Your task to perform on an android device: open app "Pluto TV - Live TV and Movies" Image 0: 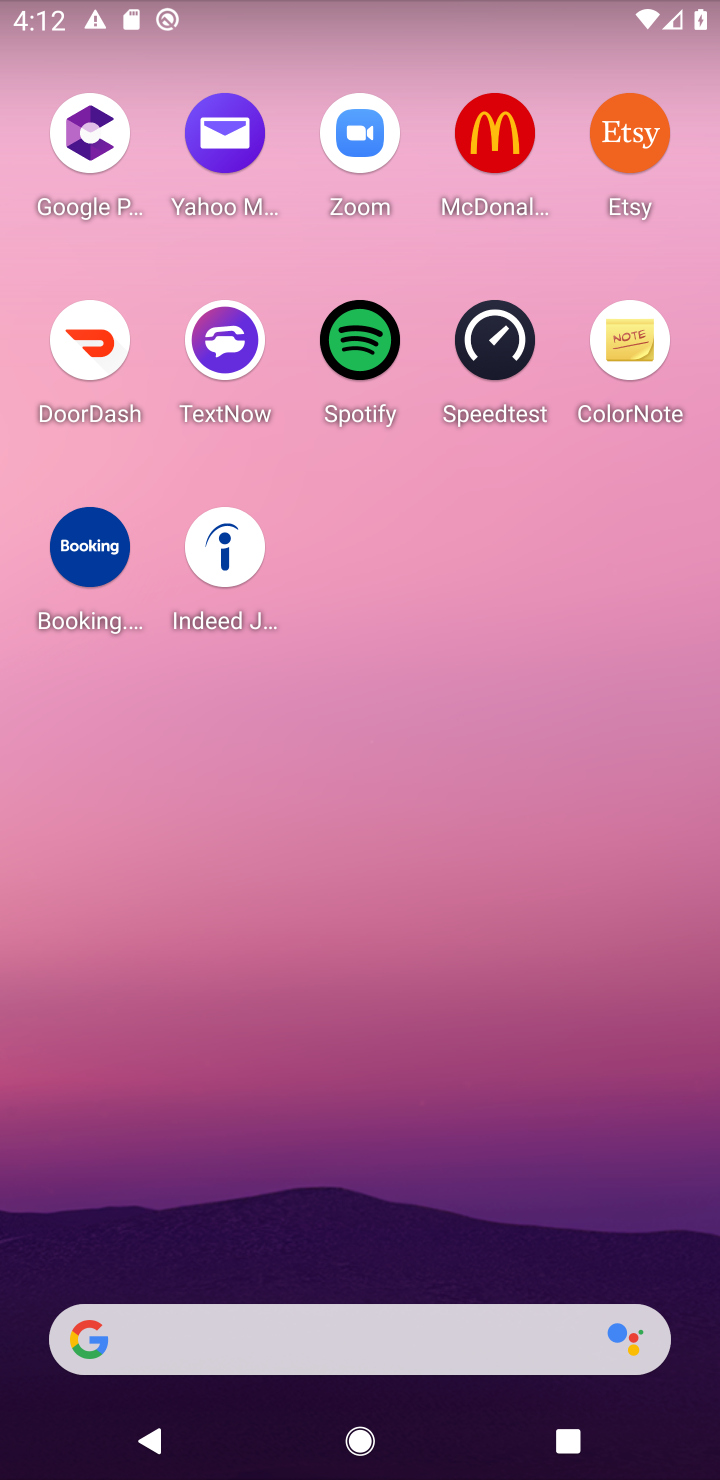
Step 0: press back button
Your task to perform on an android device: open app "Pluto TV - Live TV and Movies" Image 1: 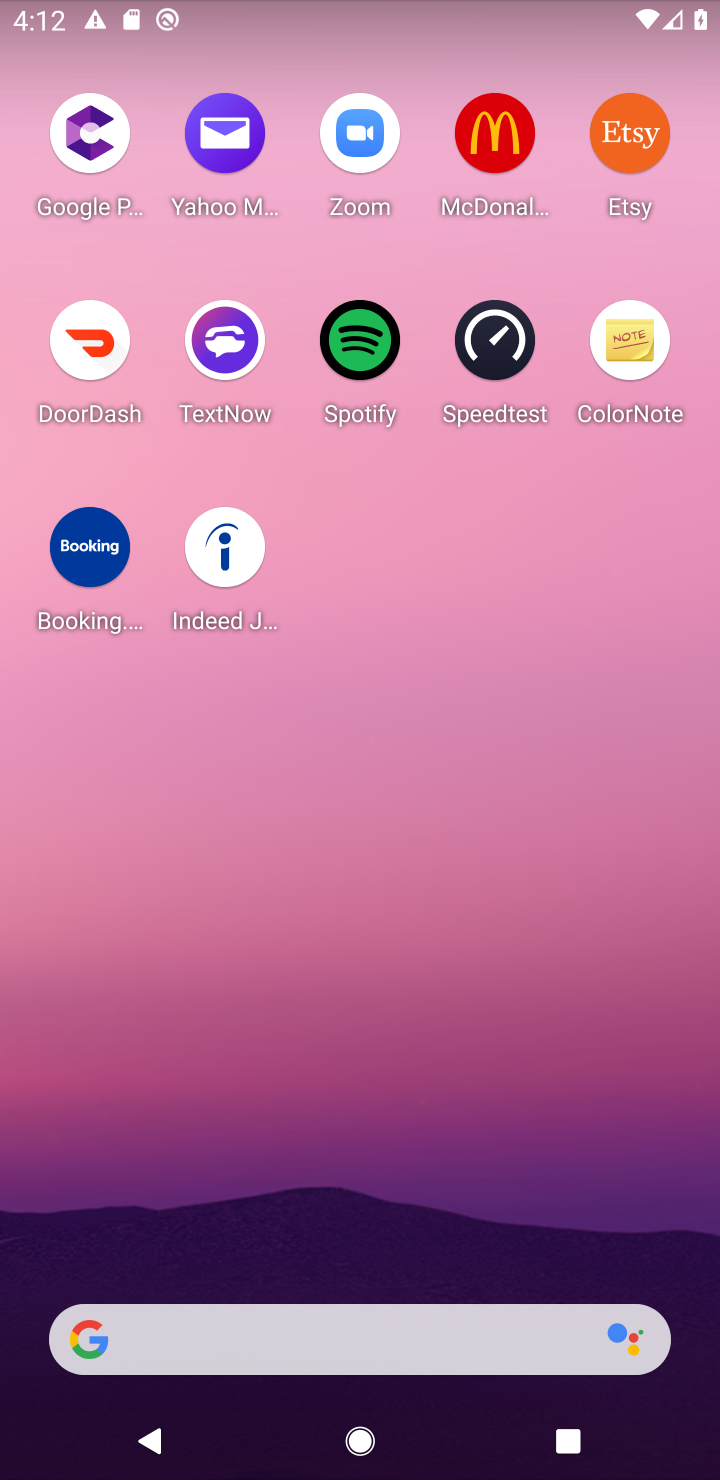
Step 1: press home button
Your task to perform on an android device: open app "Pluto TV - Live TV and Movies" Image 2: 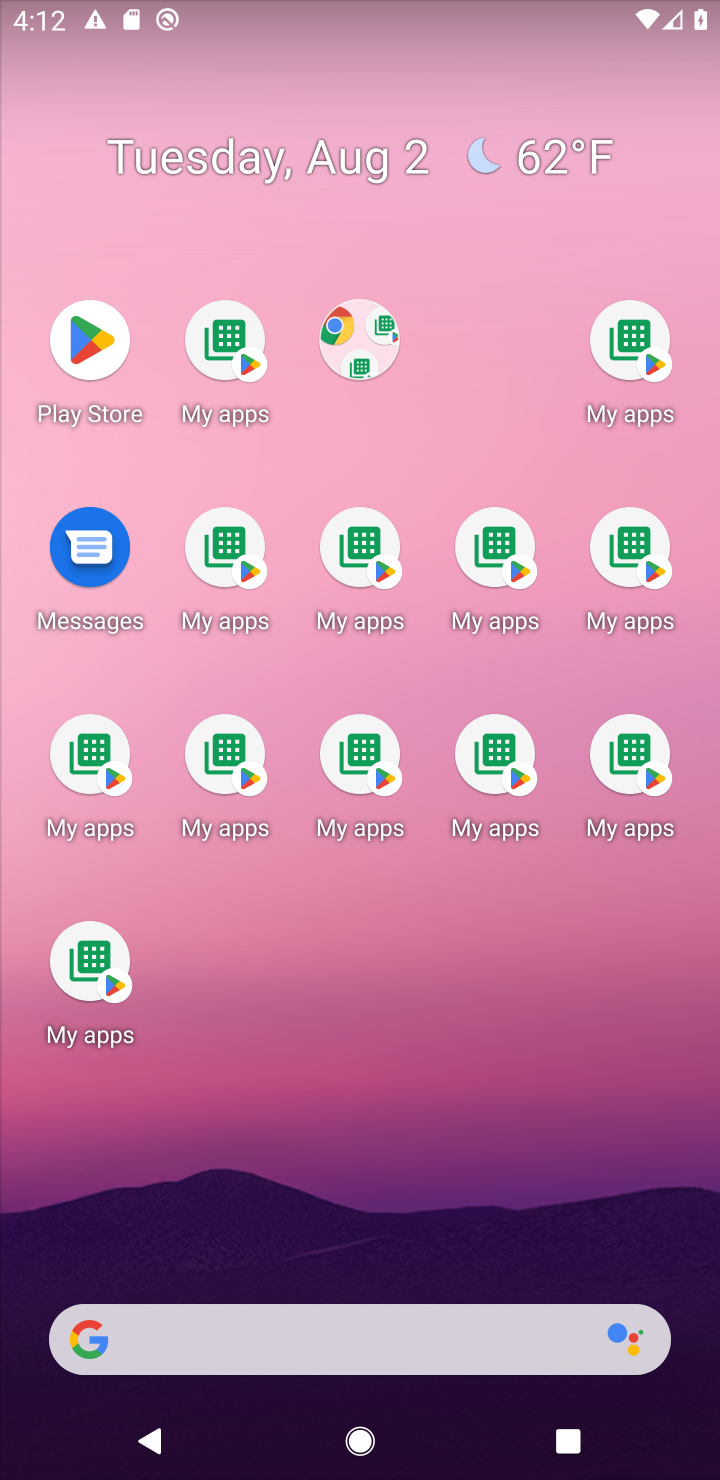
Step 2: drag from (359, 1154) to (105, 356)
Your task to perform on an android device: open app "Pluto TV - Live TV and Movies" Image 3: 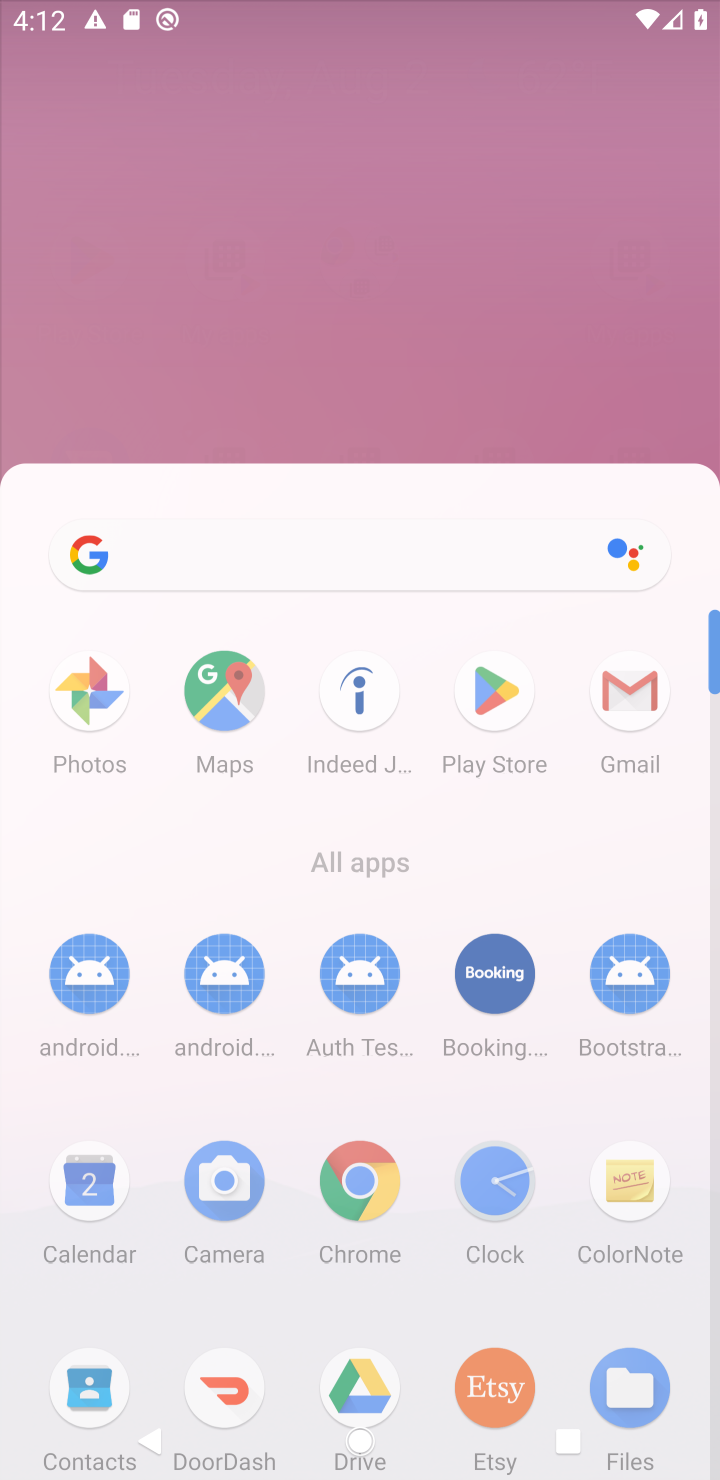
Step 3: click (98, 345)
Your task to perform on an android device: open app "Pluto TV - Live TV and Movies" Image 4: 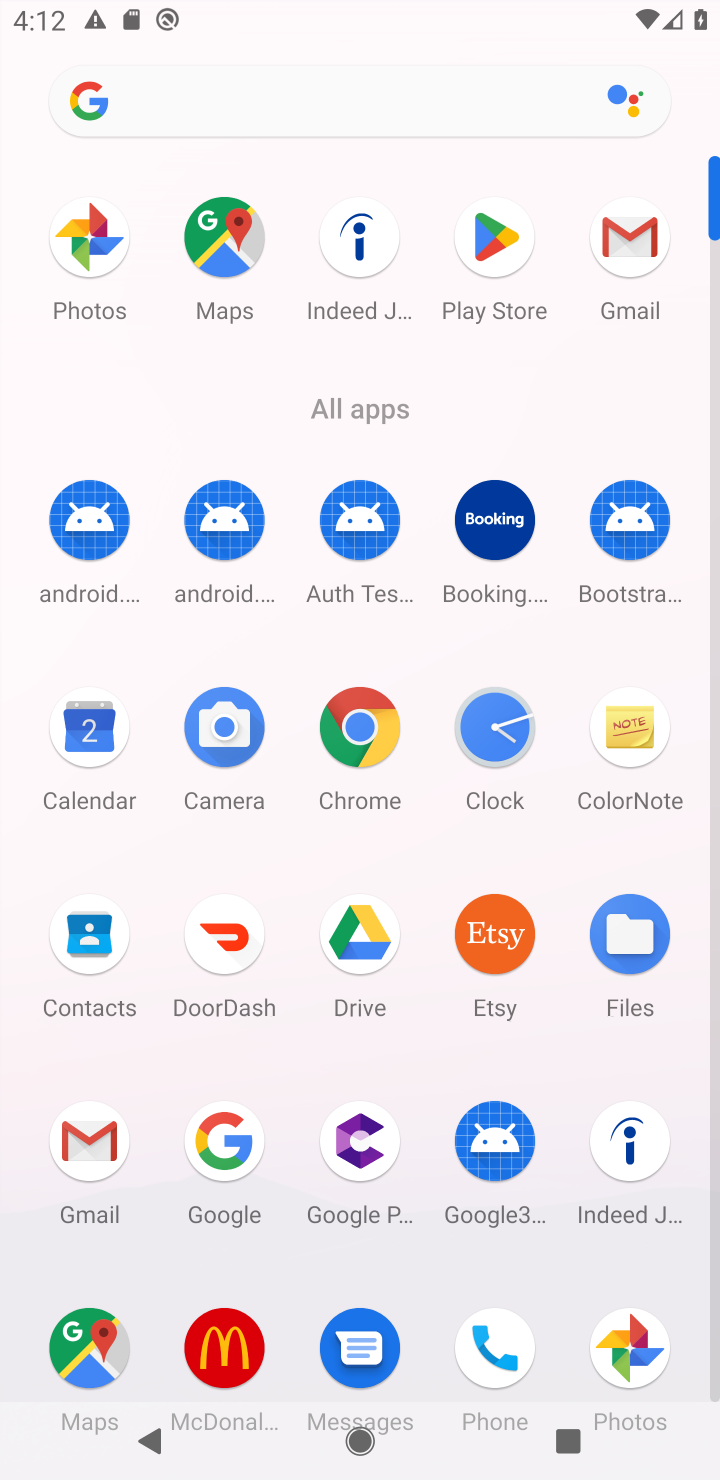
Step 4: click (492, 240)
Your task to perform on an android device: open app "Pluto TV - Live TV and Movies" Image 5: 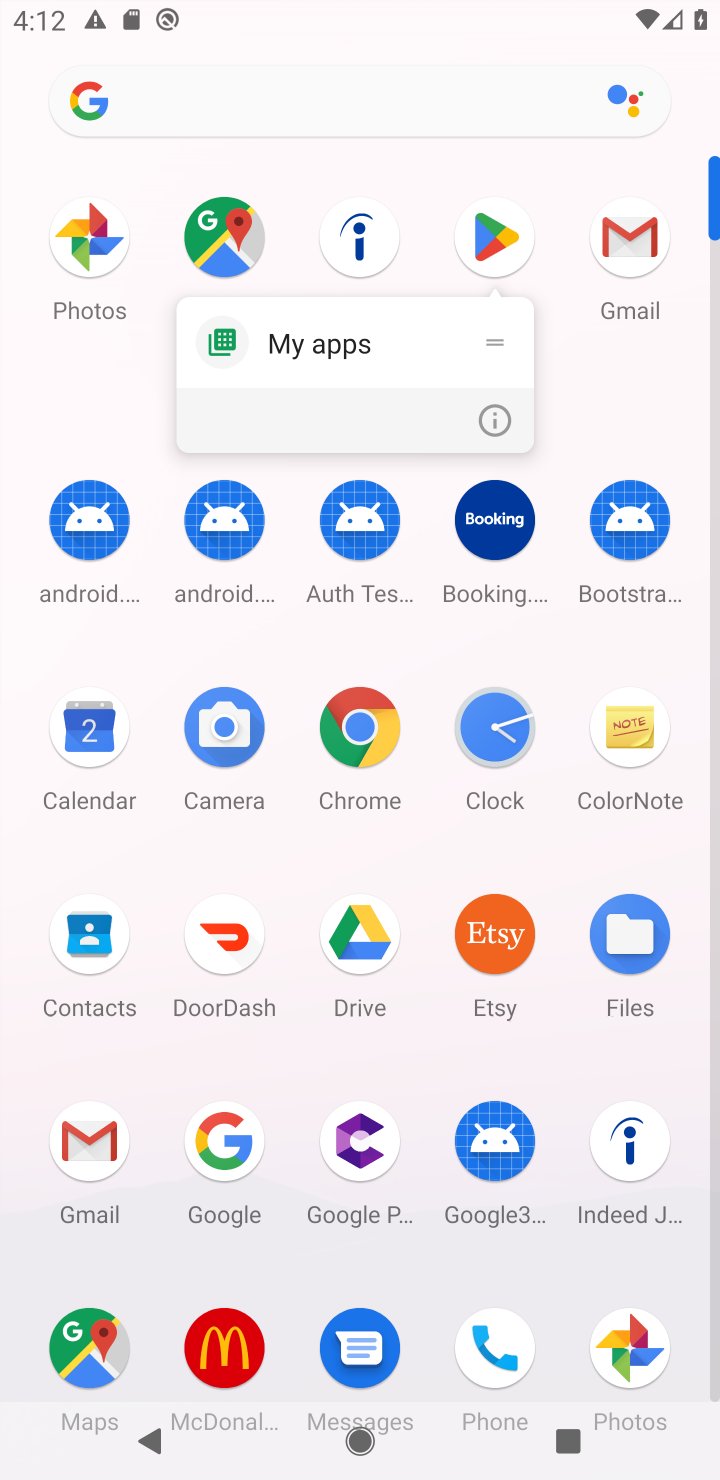
Step 5: click (296, 343)
Your task to perform on an android device: open app "Pluto TV - Live TV and Movies" Image 6: 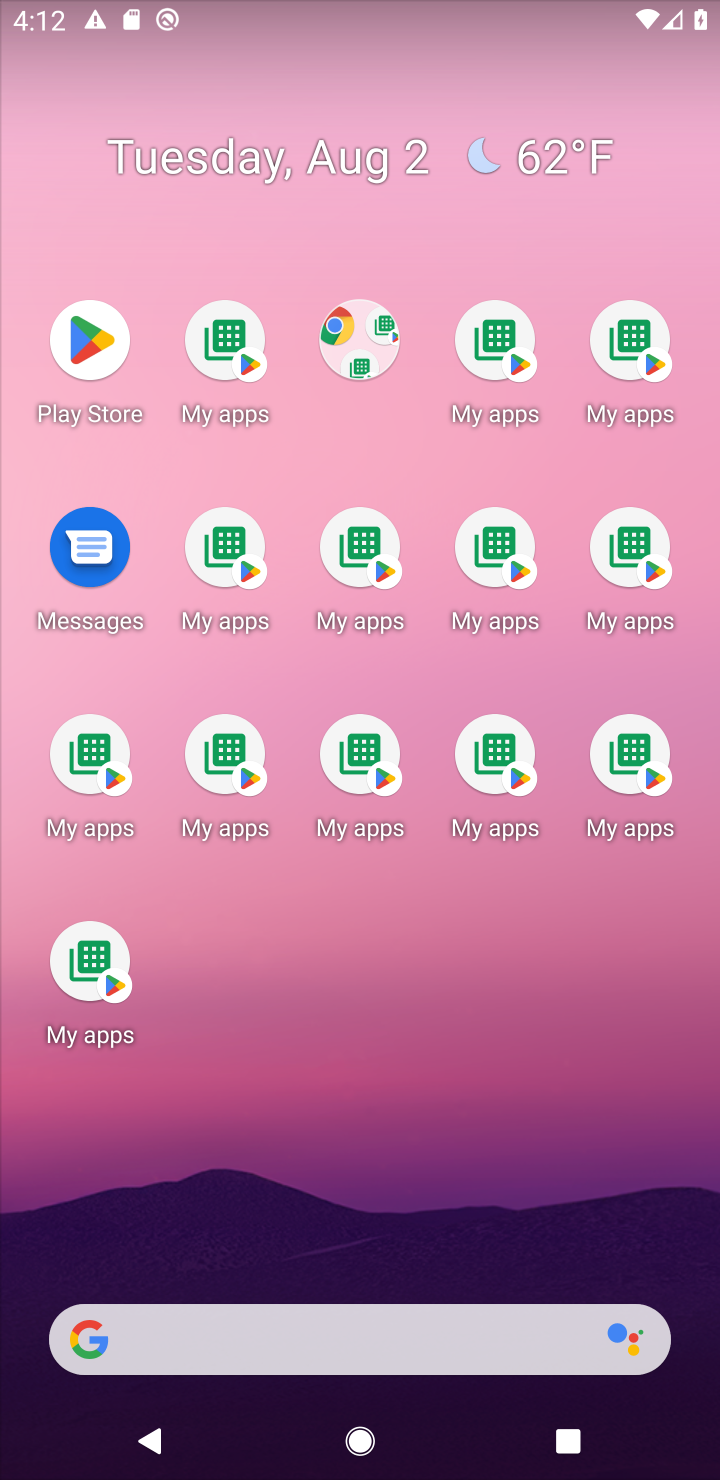
Step 6: click (111, 329)
Your task to perform on an android device: open app "Pluto TV - Live TV and Movies" Image 7: 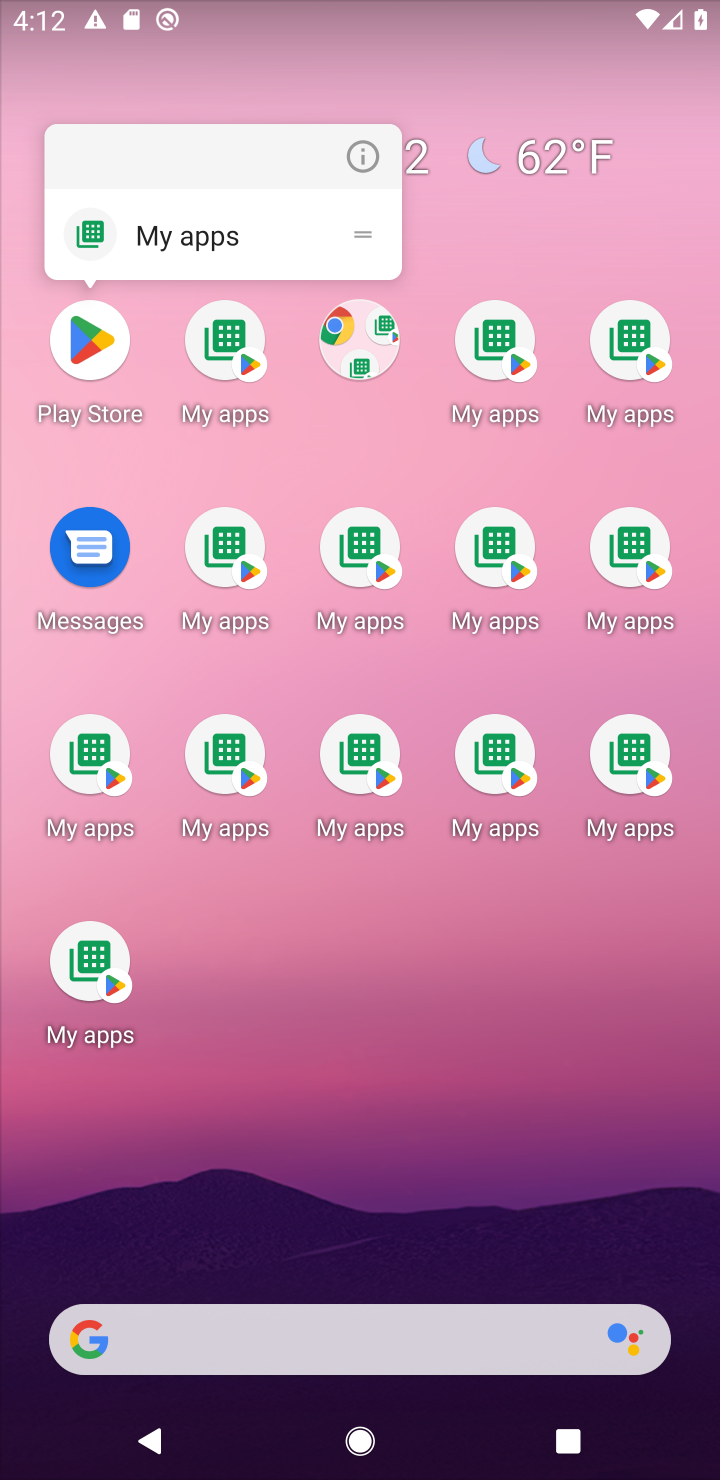
Step 7: click (142, 230)
Your task to perform on an android device: open app "Pluto TV - Live TV and Movies" Image 8: 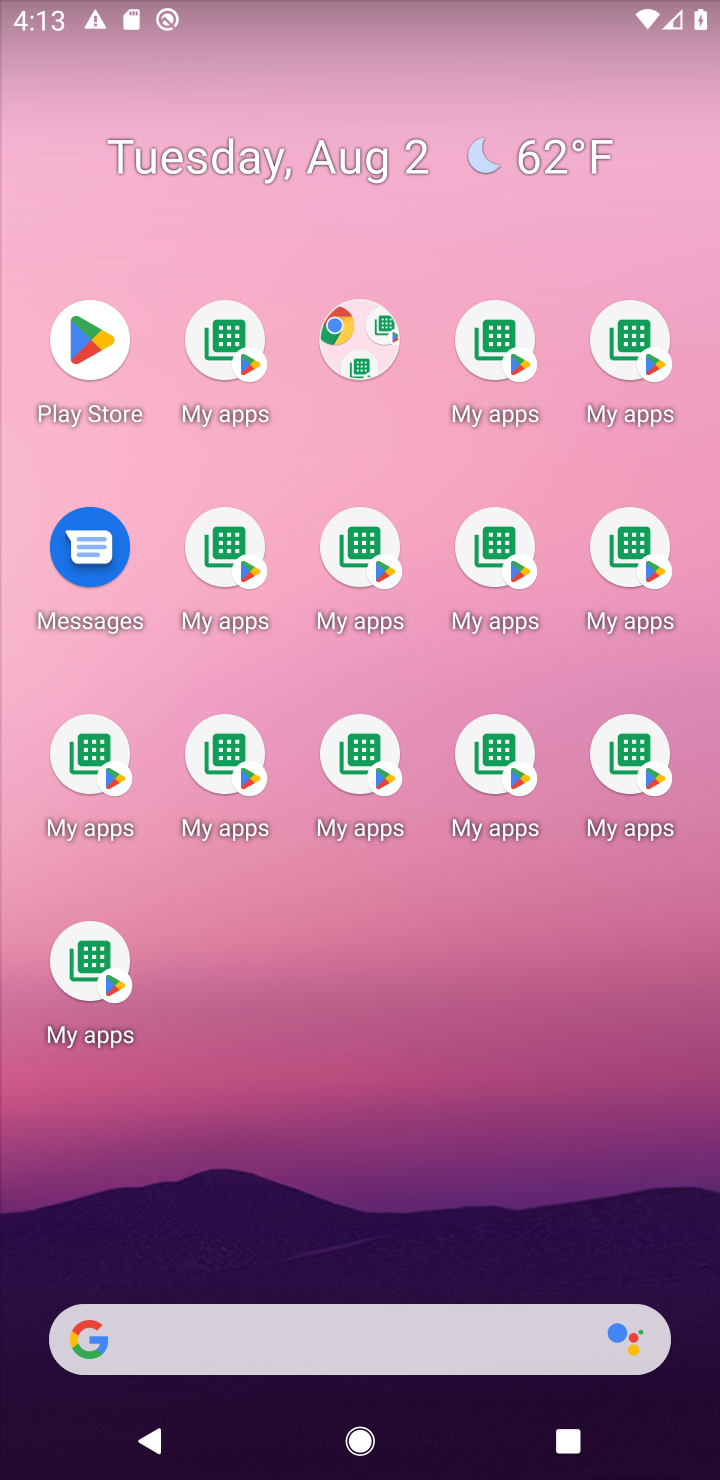
Step 8: click (102, 344)
Your task to perform on an android device: open app "Pluto TV - Live TV and Movies" Image 9: 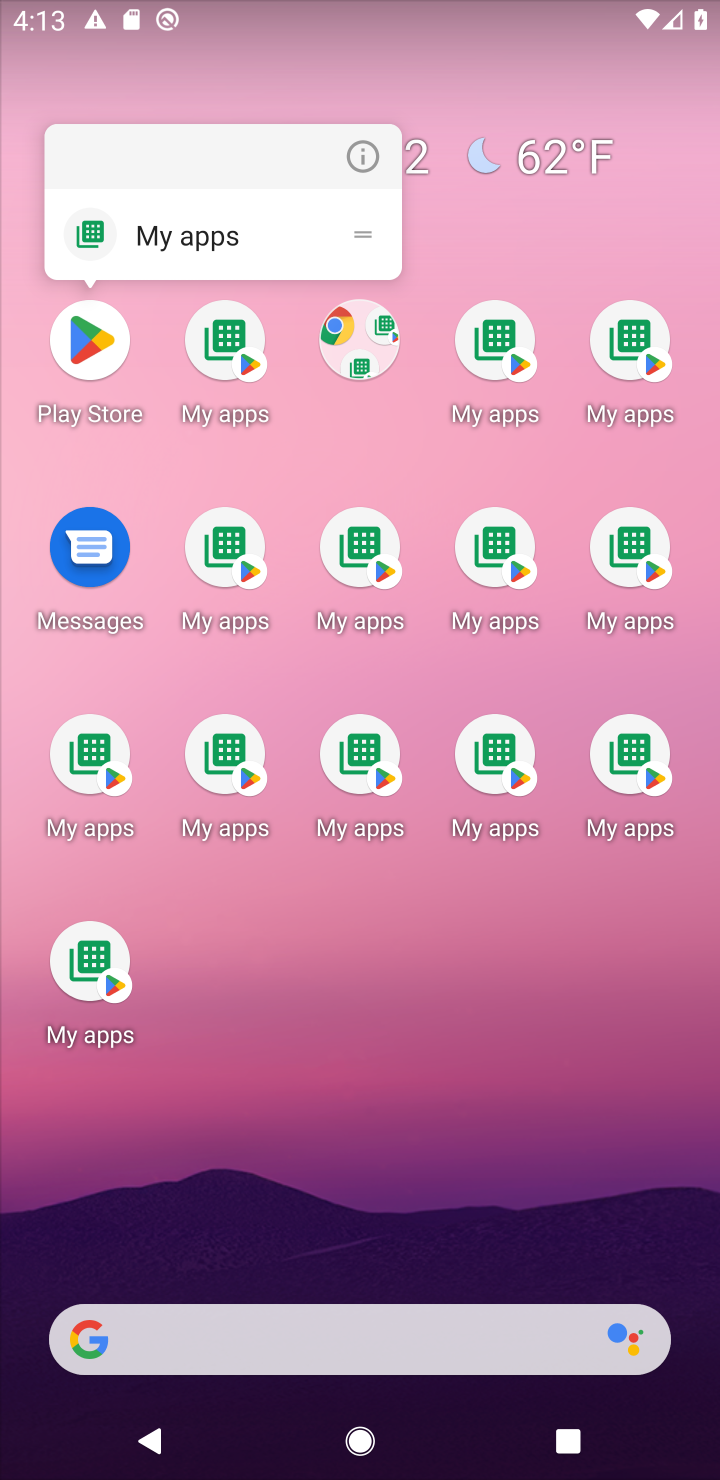
Step 9: click (128, 332)
Your task to perform on an android device: open app "Pluto TV - Live TV and Movies" Image 10: 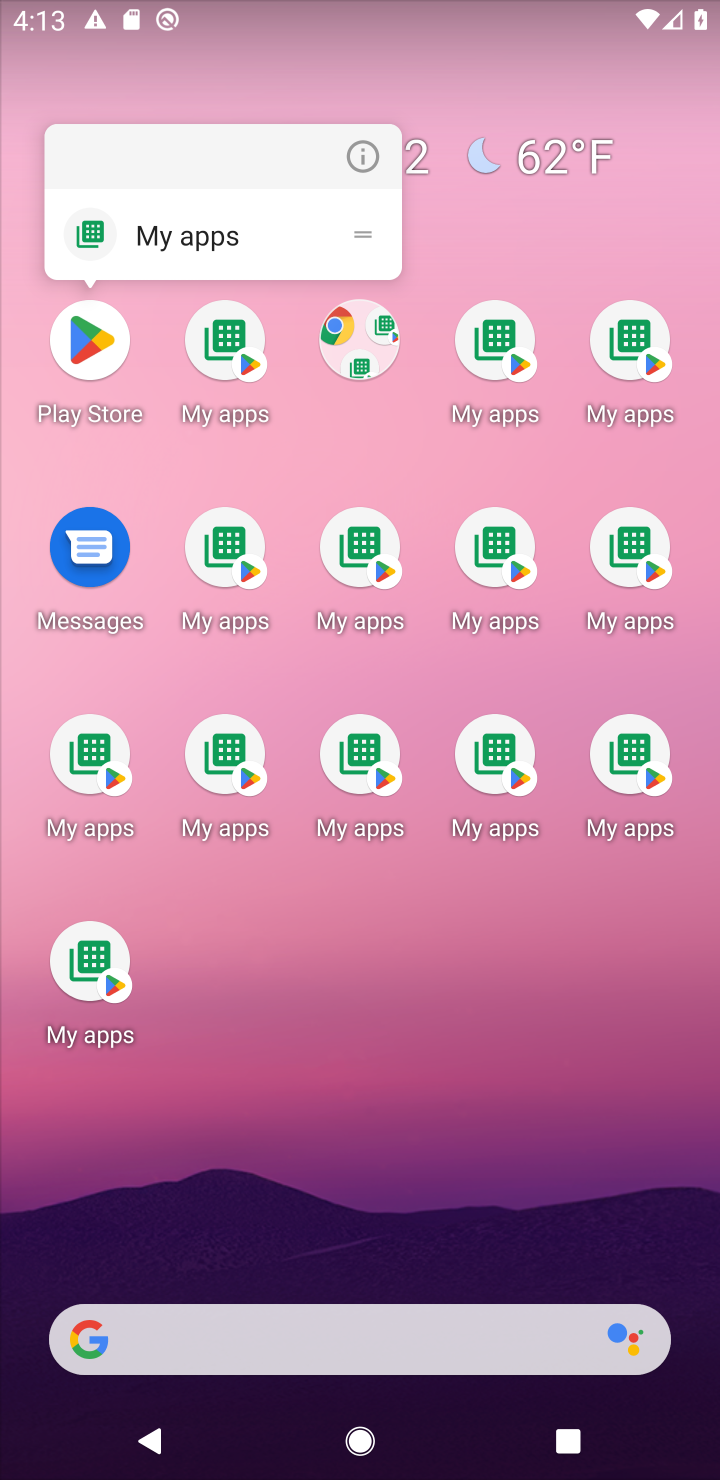
Step 10: click (96, 331)
Your task to perform on an android device: open app "Pluto TV - Live TV and Movies" Image 11: 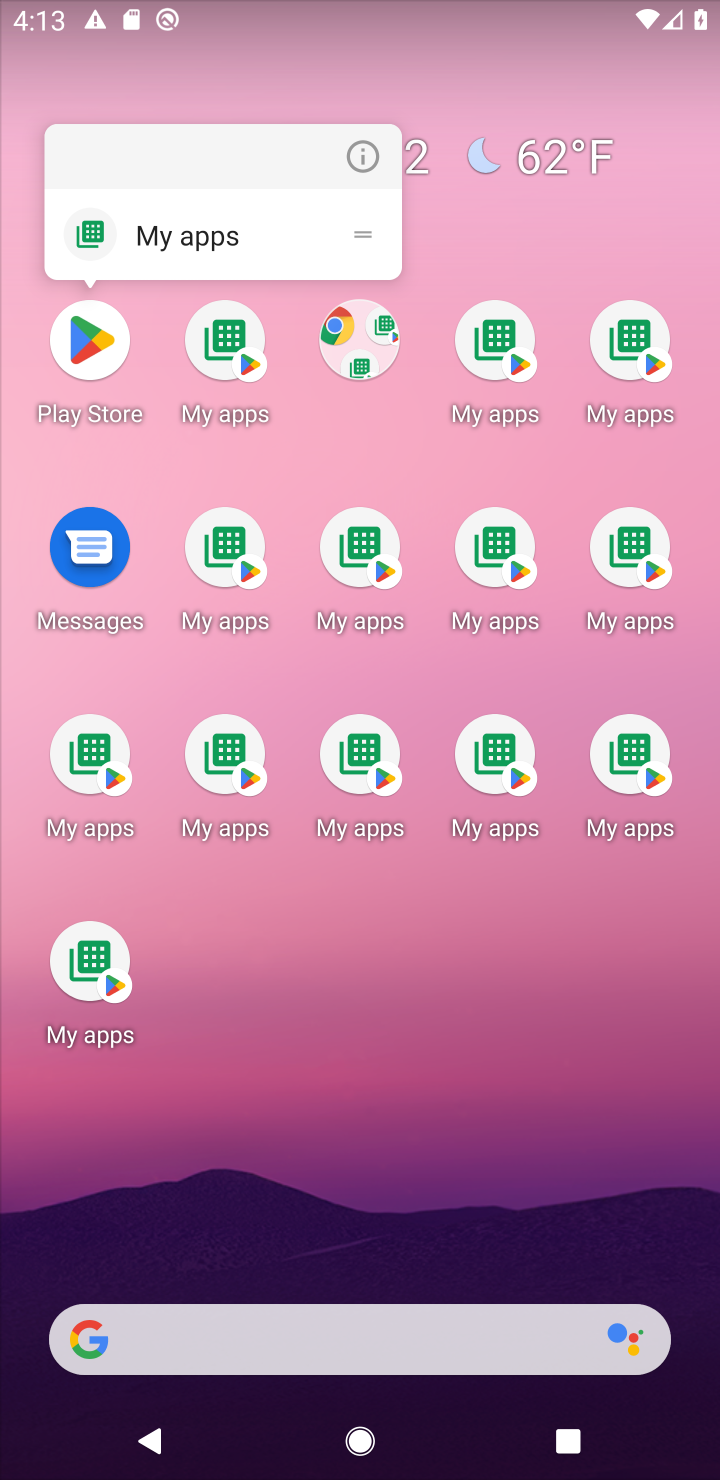
Step 11: click (73, 311)
Your task to perform on an android device: open app "Pluto TV - Live TV and Movies" Image 12: 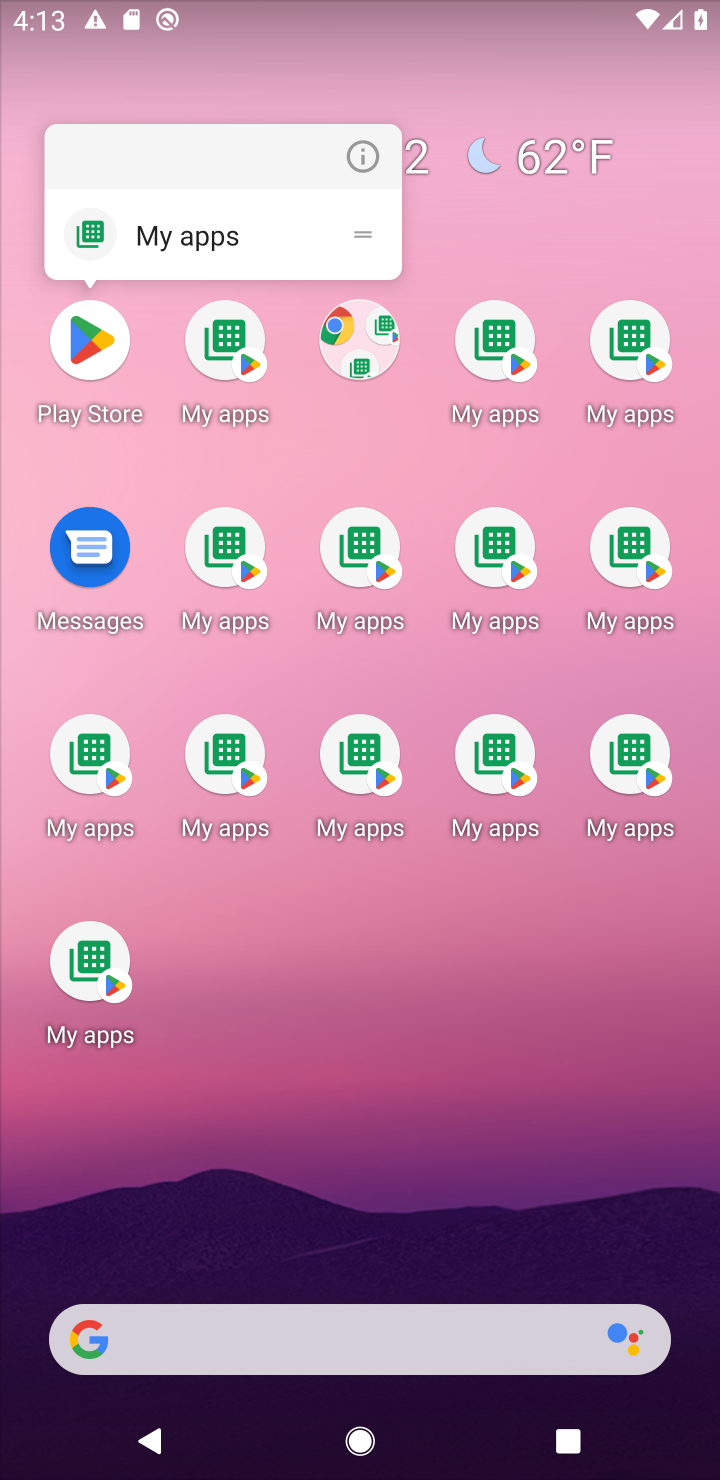
Step 12: click (66, 343)
Your task to perform on an android device: open app "Pluto TV - Live TV and Movies" Image 13: 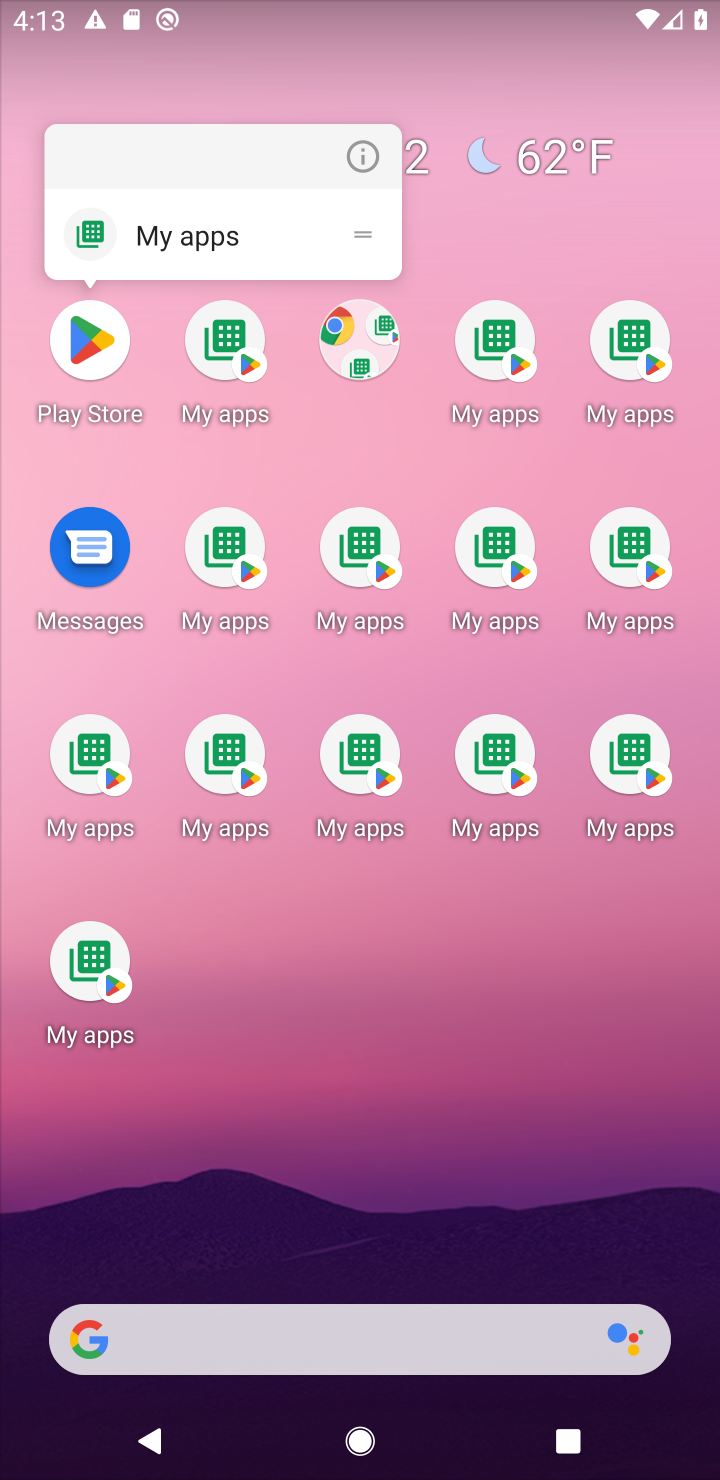
Step 13: drag from (108, 339) to (66, 403)
Your task to perform on an android device: open app "Pluto TV - Live TV and Movies" Image 14: 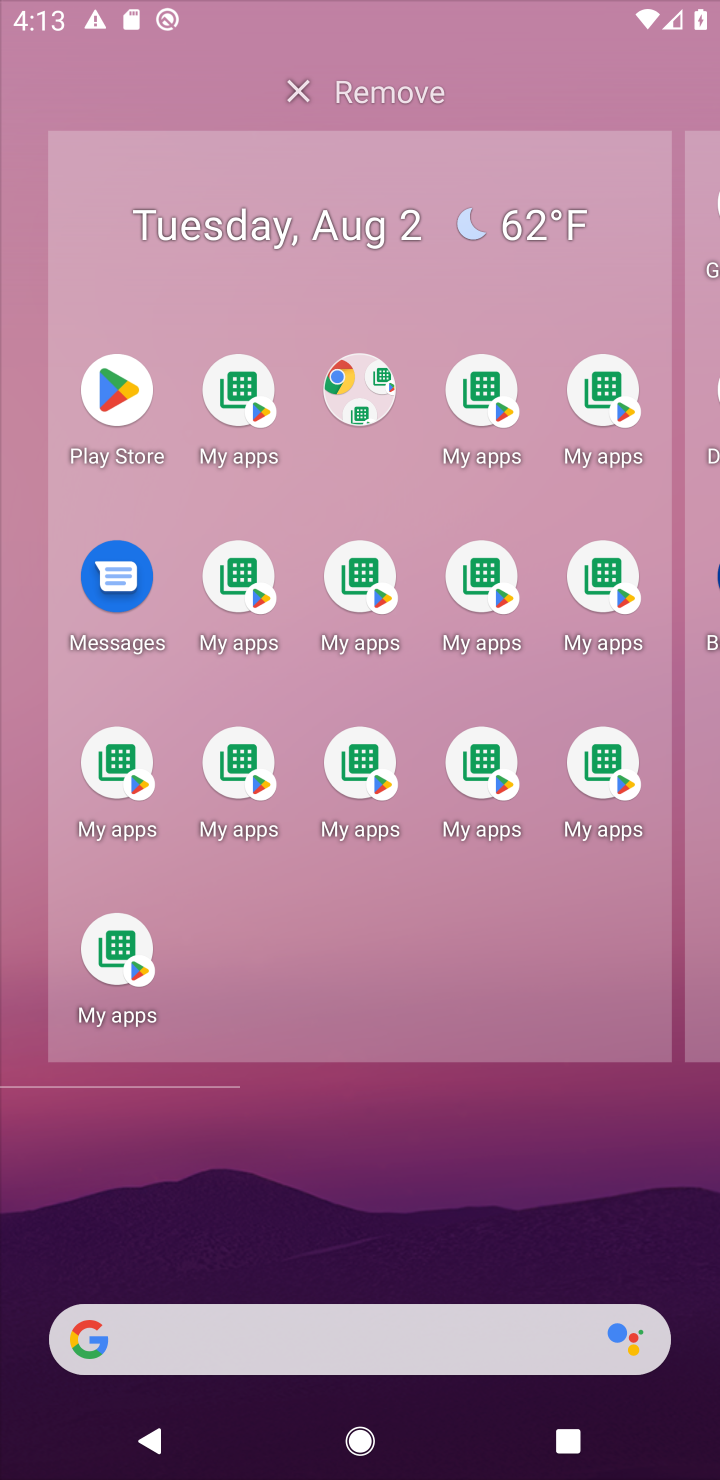
Step 14: drag from (418, 981) to (249, 394)
Your task to perform on an android device: open app "Pluto TV - Live TV and Movies" Image 15: 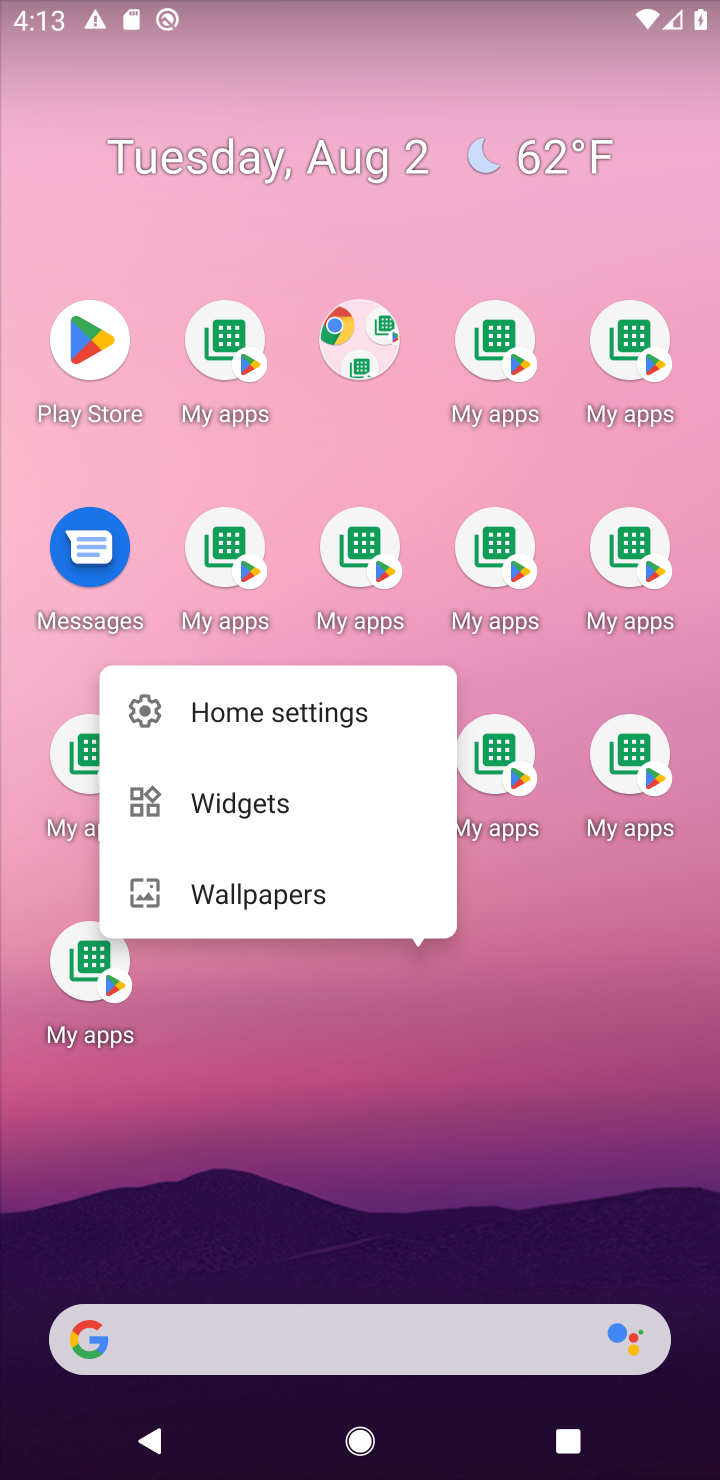
Step 15: click (370, 10)
Your task to perform on an android device: open app "Pluto TV - Live TV and Movies" Image 16: 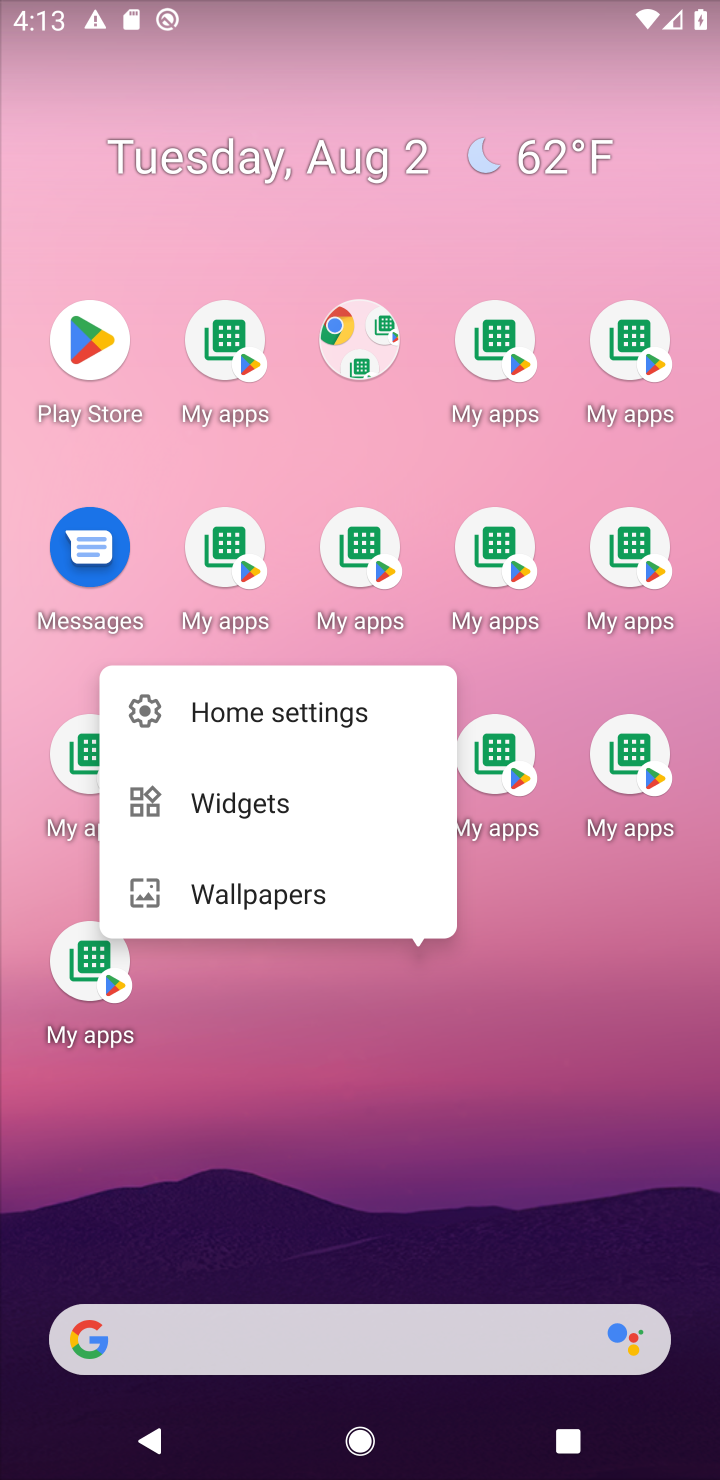
Step 16: drag from (311, 148) to (226, 112)
Your task to perform on an android device: open app "Pluto TV - Live TV and Movies" Image 17: 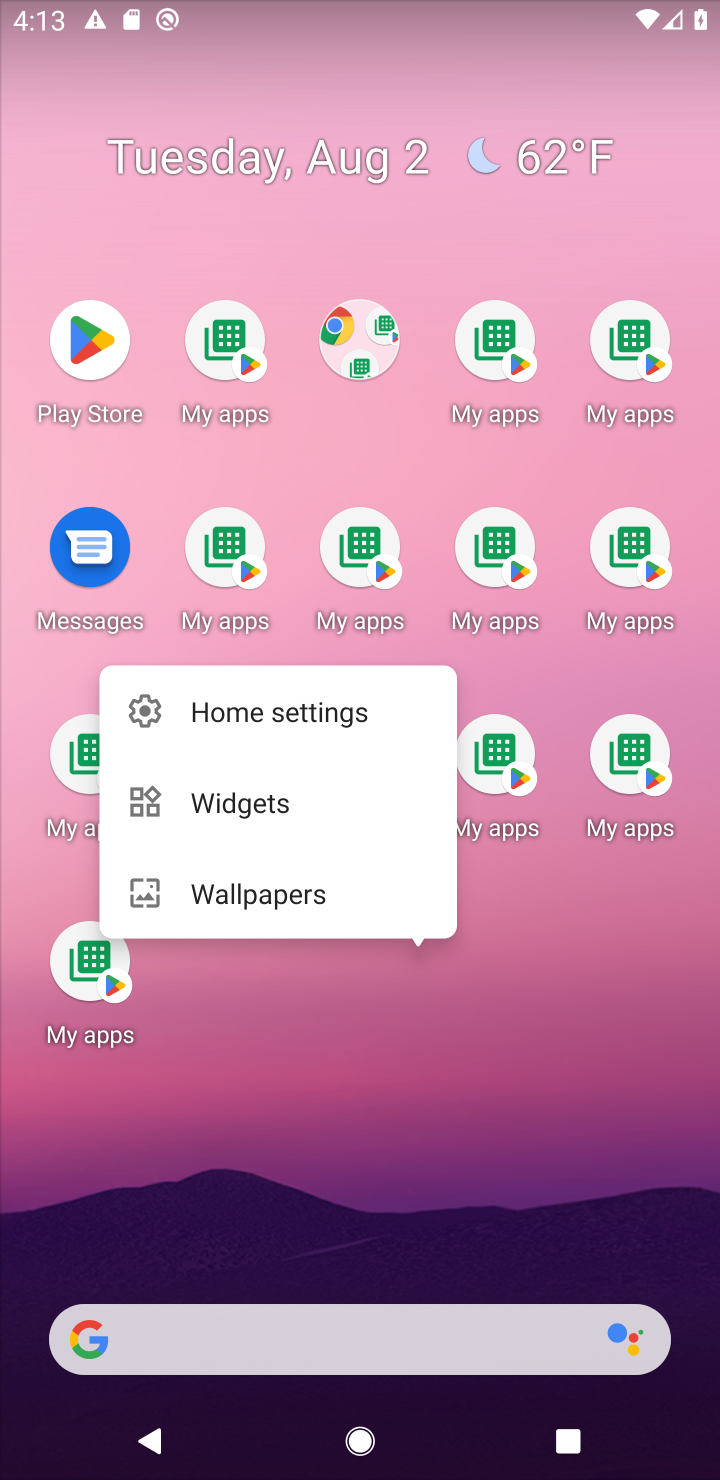
Step 17: click (93, 313)
Your task to perform on an android device: open app "Pluto TV - Live TV and Movies" Image 18: 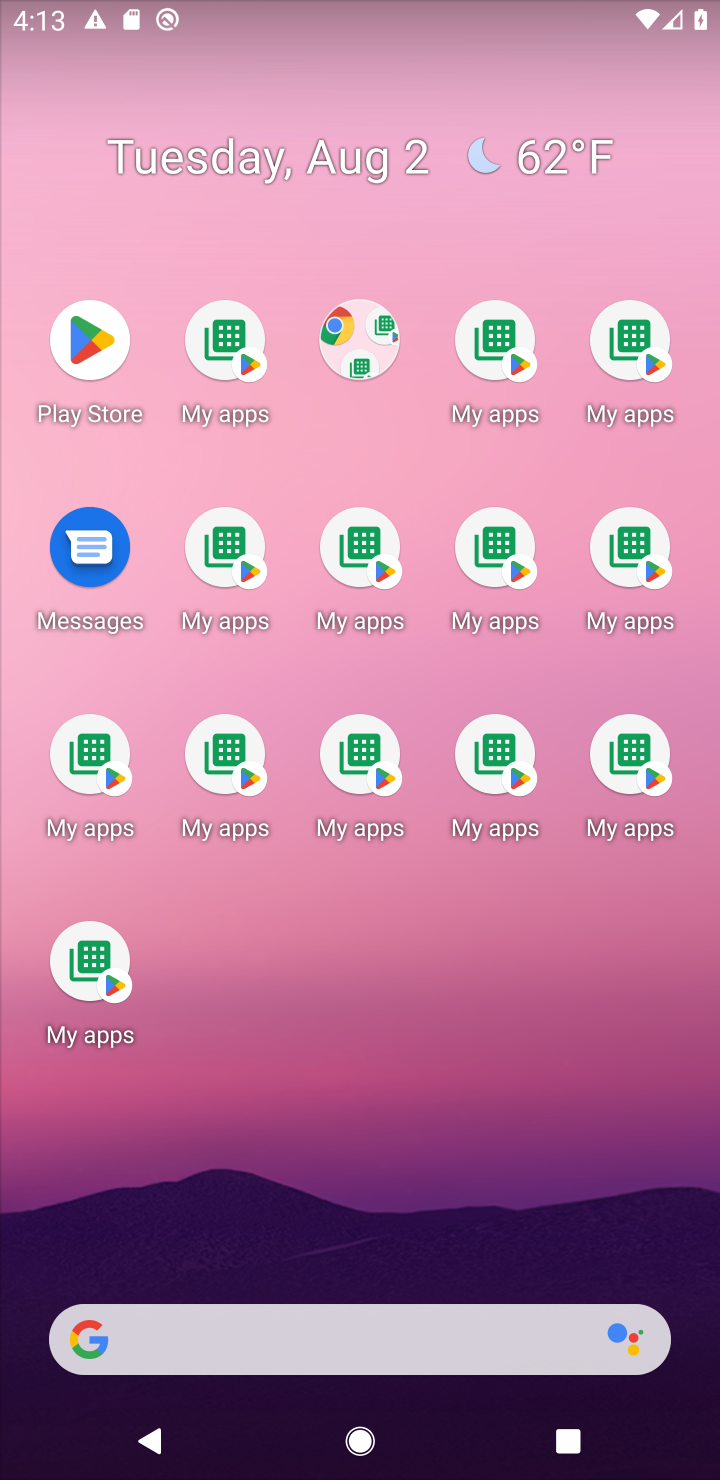
Step 18: click (78, 324)
Your task to perform on an android device: open app "Pluto TV - Live TV and Movies" Image 19: 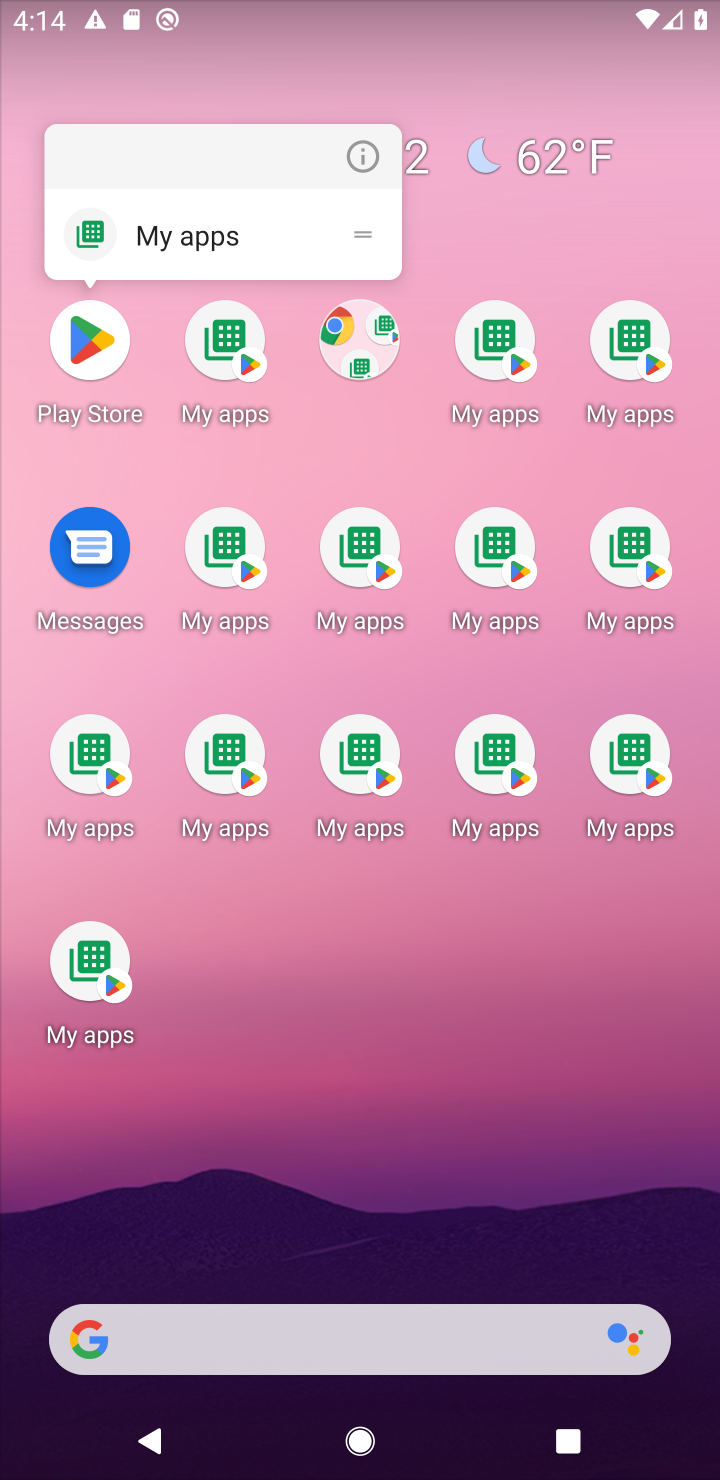
Step 19: click (106, 312)
Your task to perform on an android device: open app "Pluto TV - Live TV and Movies" Image 20: 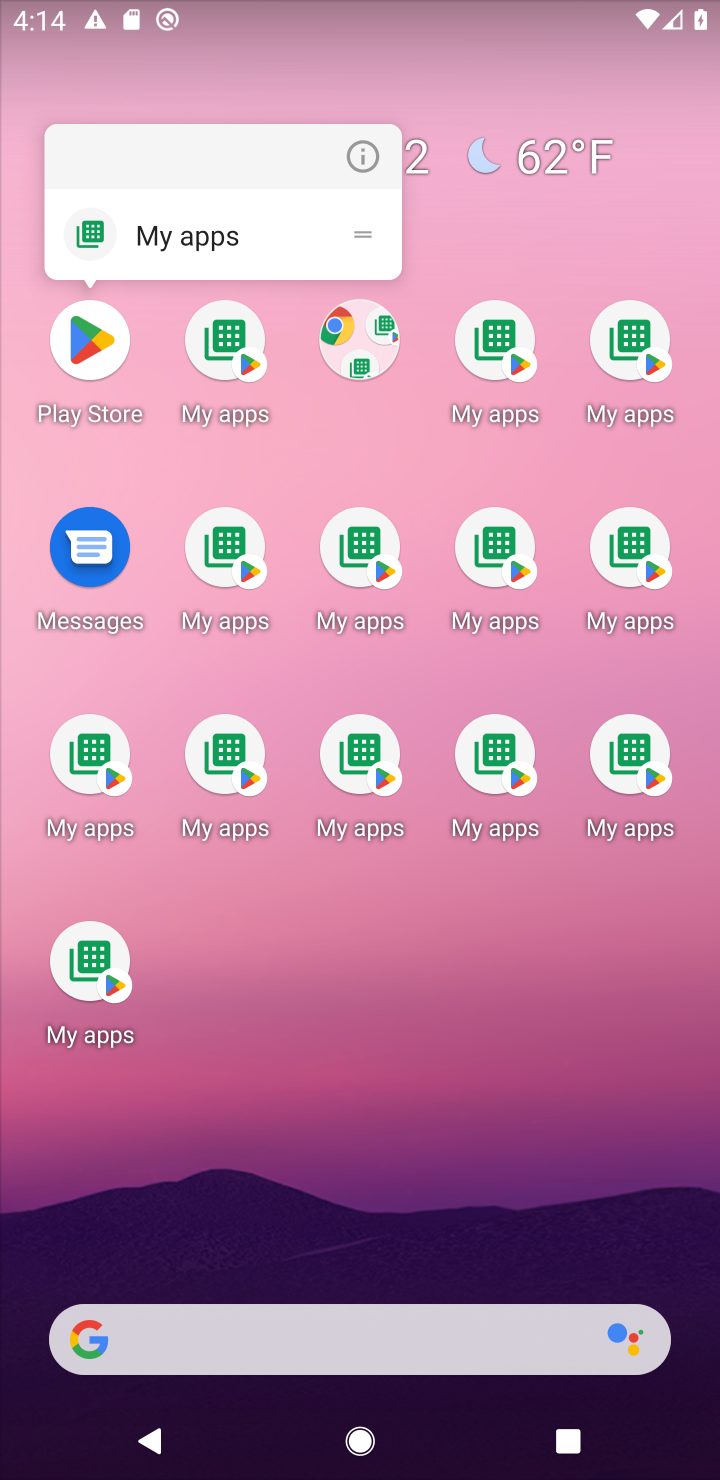
Step 20: drag from (117, 356) to (369, 272)
Your task to perform on an android device: open app "Pluto TV - Live TV and Movies" Image 21: 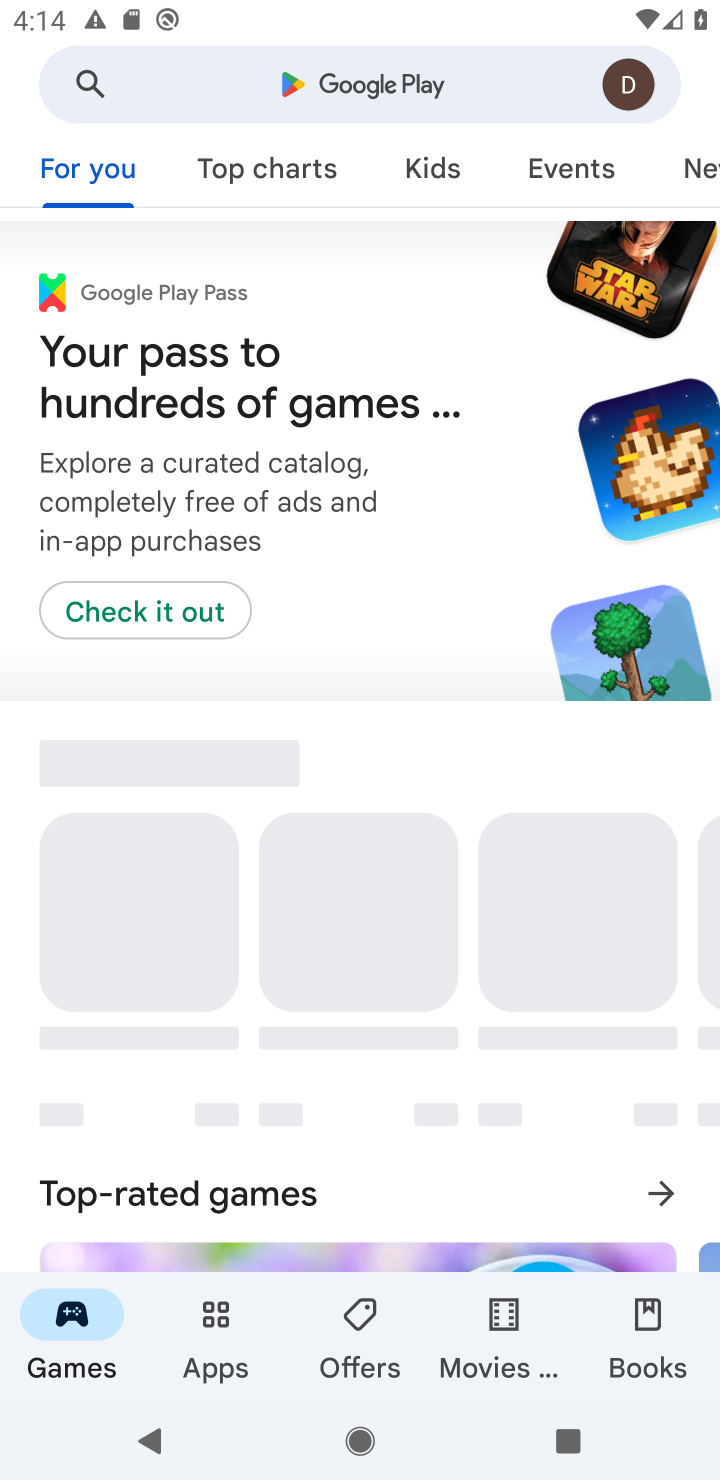
Step 21: click (287, 74)
Your task to perform on an android device: open app "Pluto TV - Live TV and Movies" Image 22: 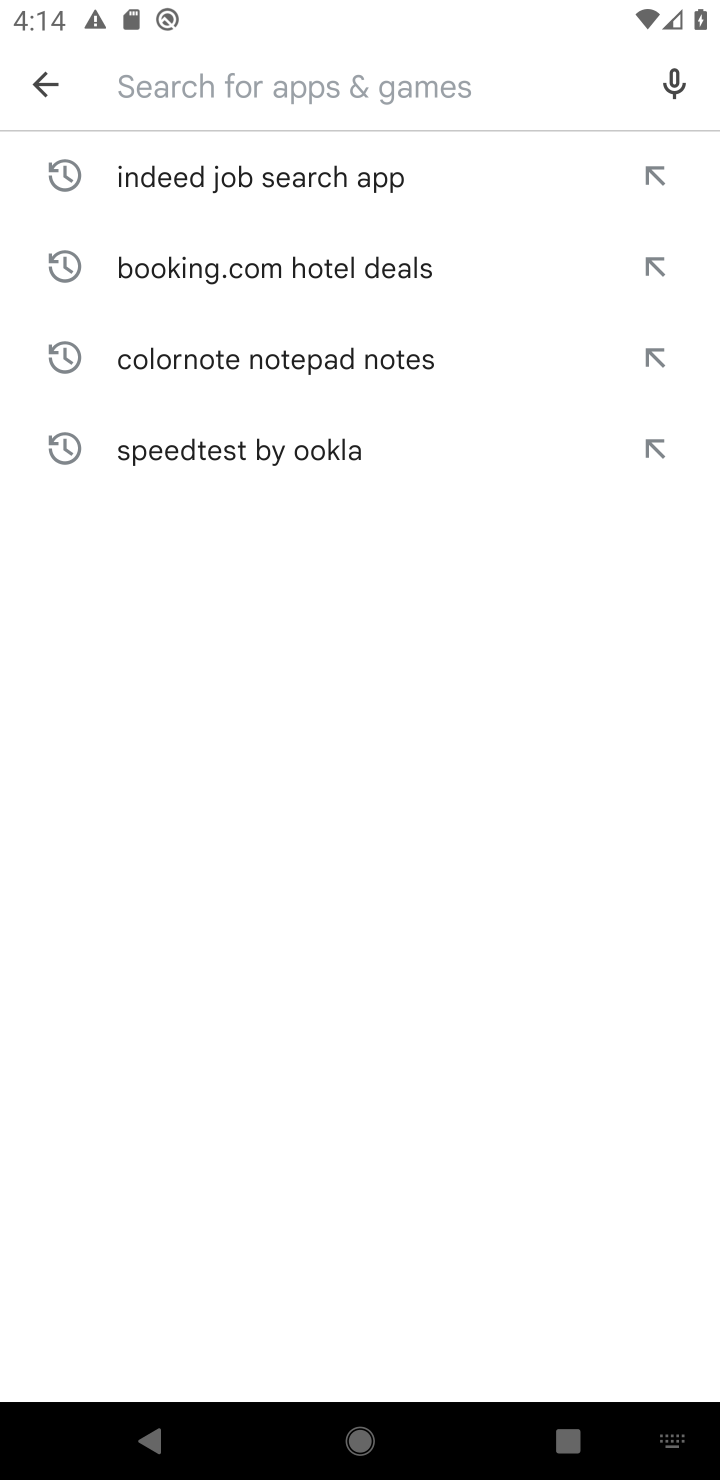
Step 22: type "pluto tv"
Your task to perform on an android device: open app "Pluto TV - Live TV and Movies" Image 23: 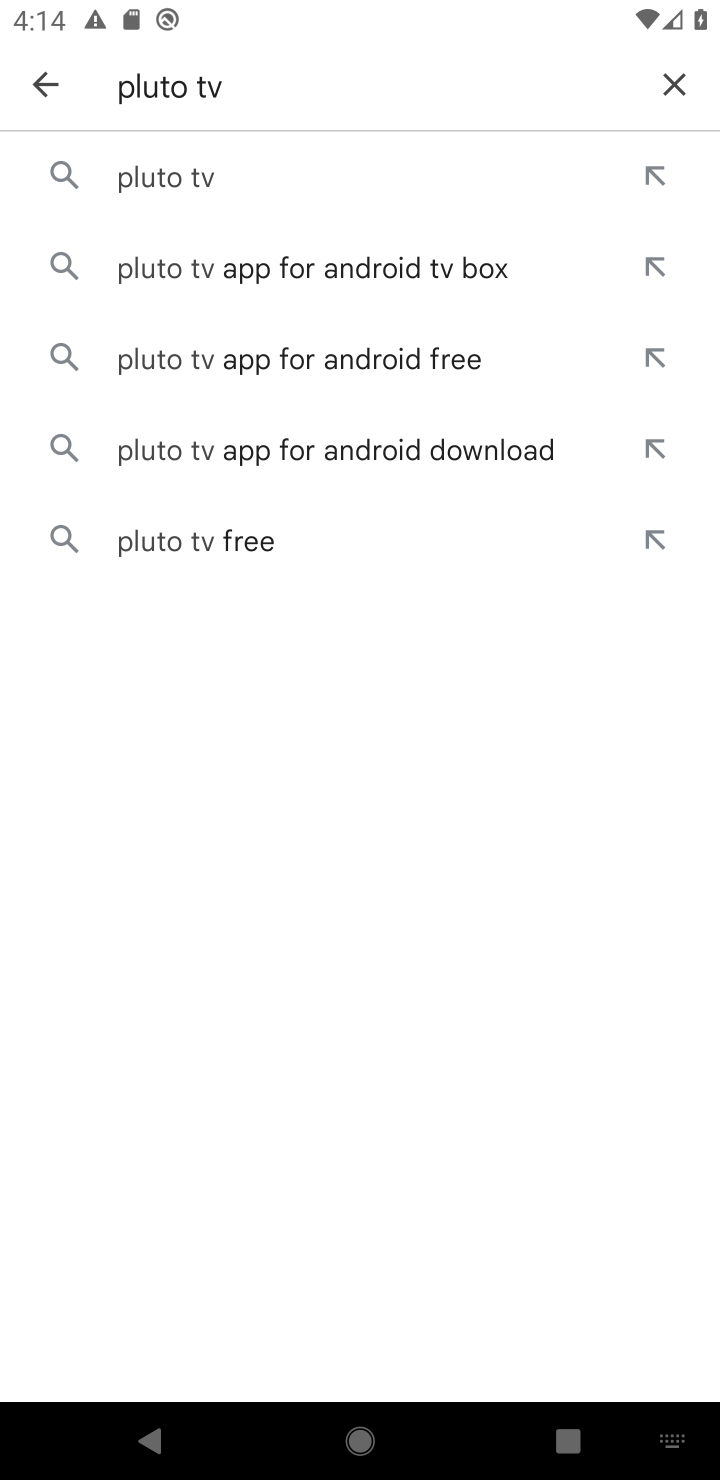
Step 23: click (146, 178)
Your task to perform on an android device: open app "Pluto TV - Live TV and Movies" Image 24: 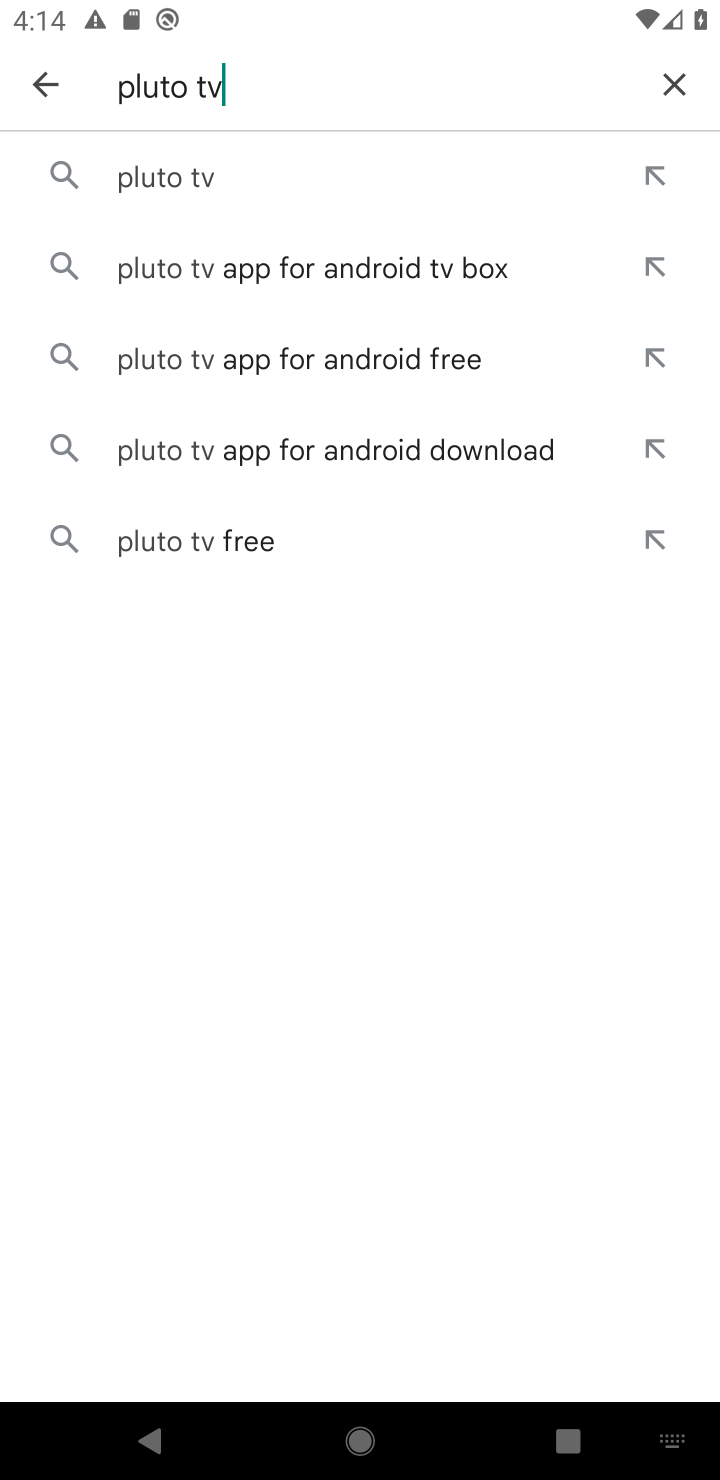
Step 24: click (146, 178)
Your task to perform on an android device: open app "Pluto TV - Live TV and Movies" Image 25: 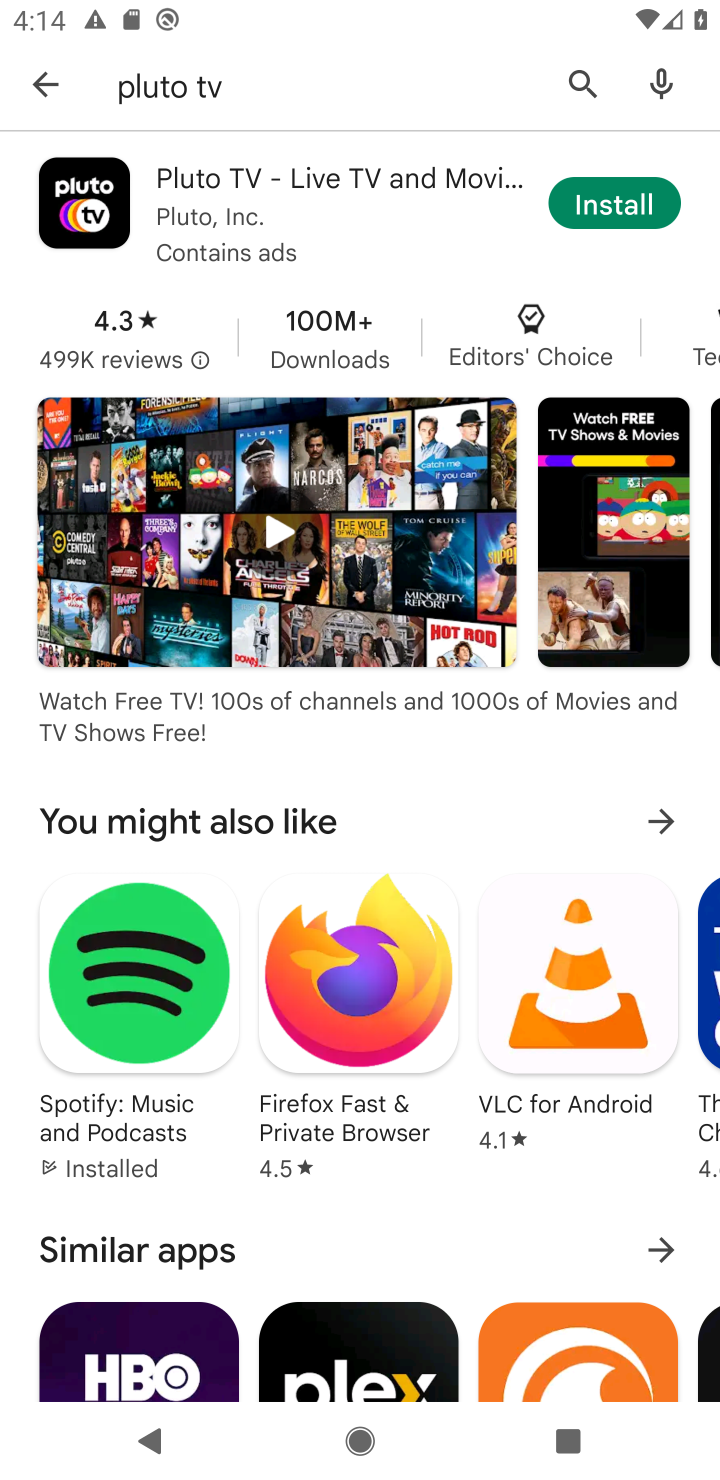
Step 25: click (613, 208)
Your task to perform on an android device: open app "Pluto TV - Live TV and Movies" Image 26: 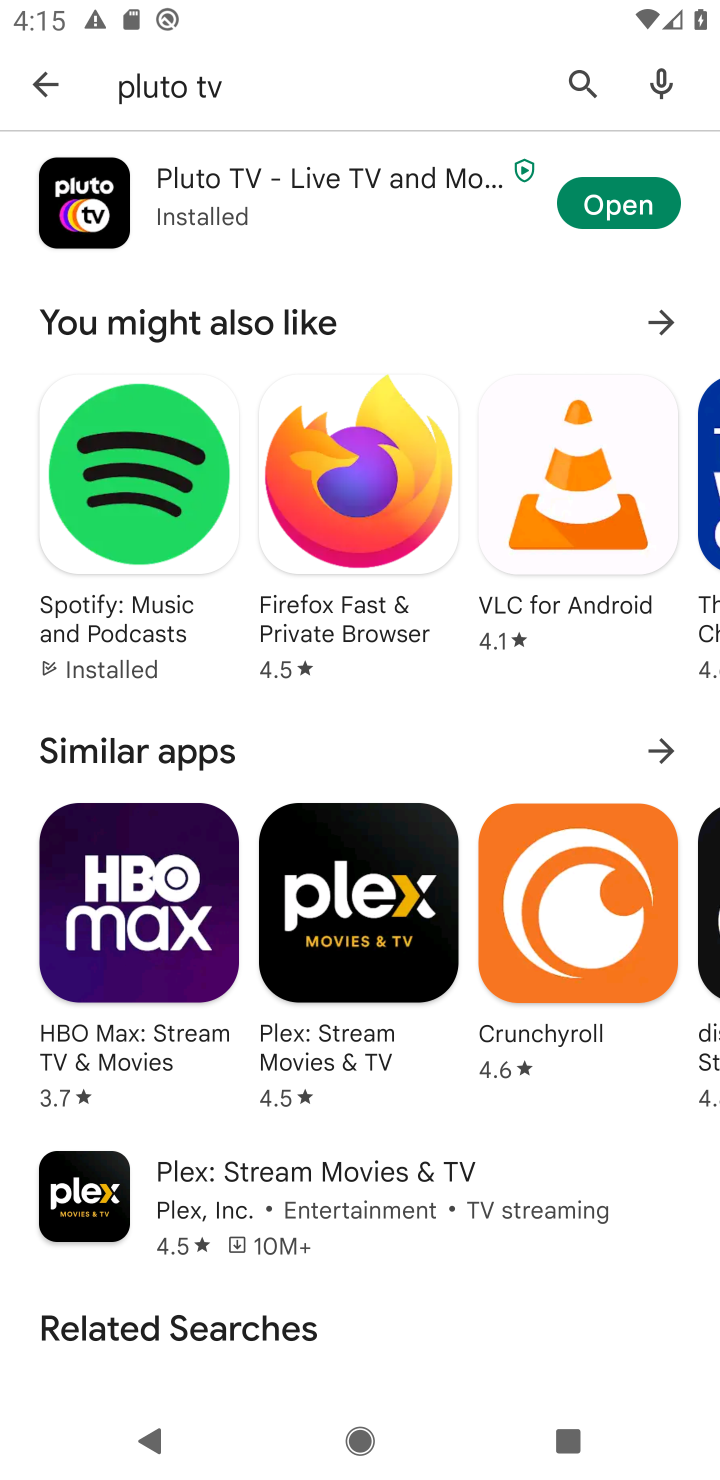
Step 26: click (643, 179)
Your task to perform on an android device: open app "Pluto TV - Live TV and Movies" Image 27: 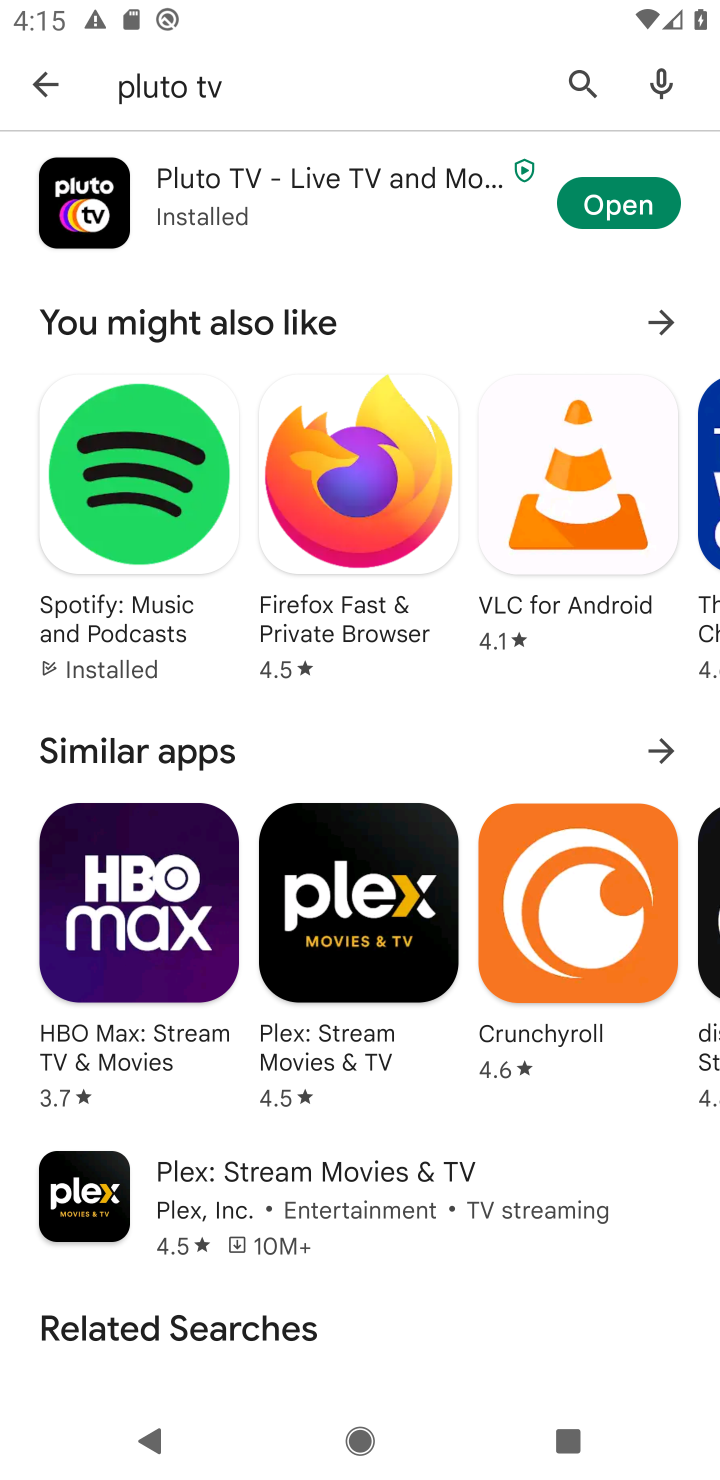
Step 27: click (658, 204)
Your task to perform on an android device: open app "Pluto TV - Live TV and Movies" Image 28: 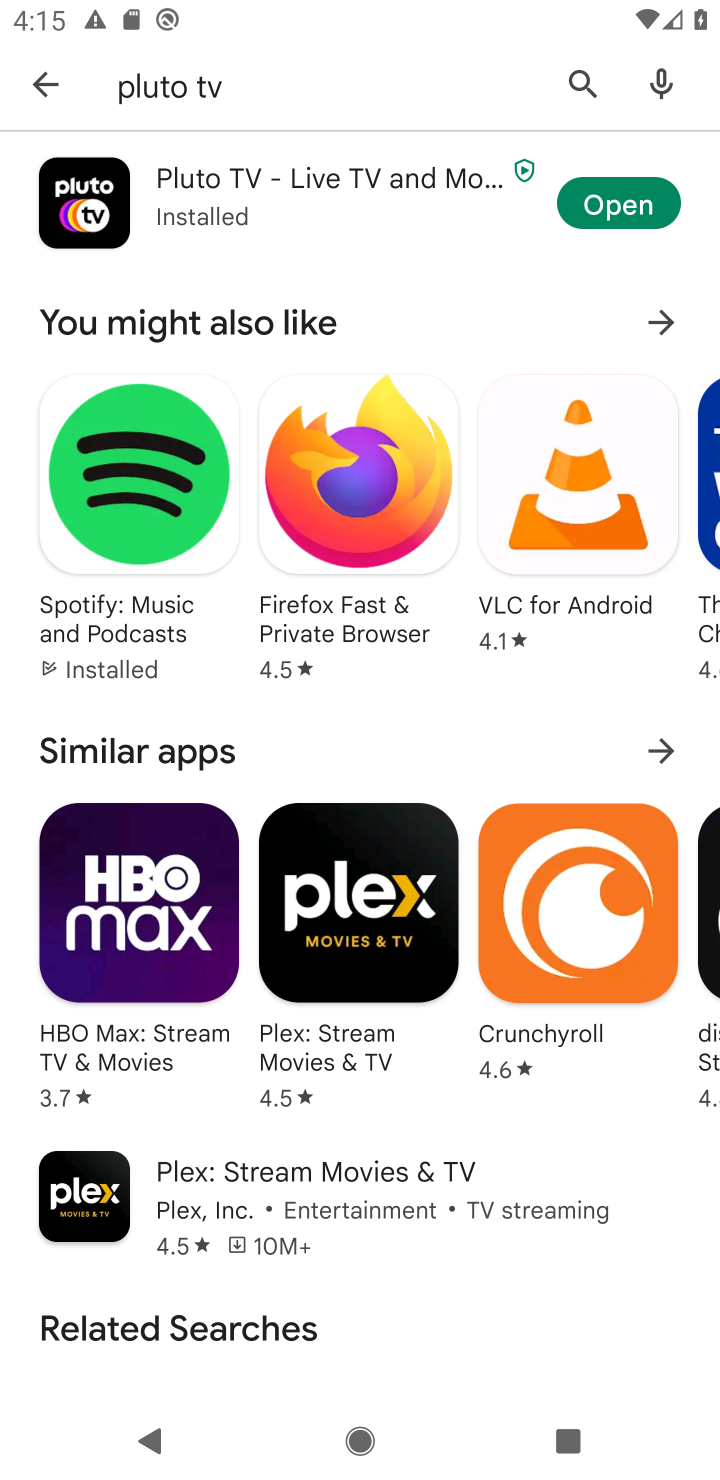
Step 28: click (671, 212)
Your task to perform on an android device: open app "Pluto TV - Live TV and Movies" Image 29: 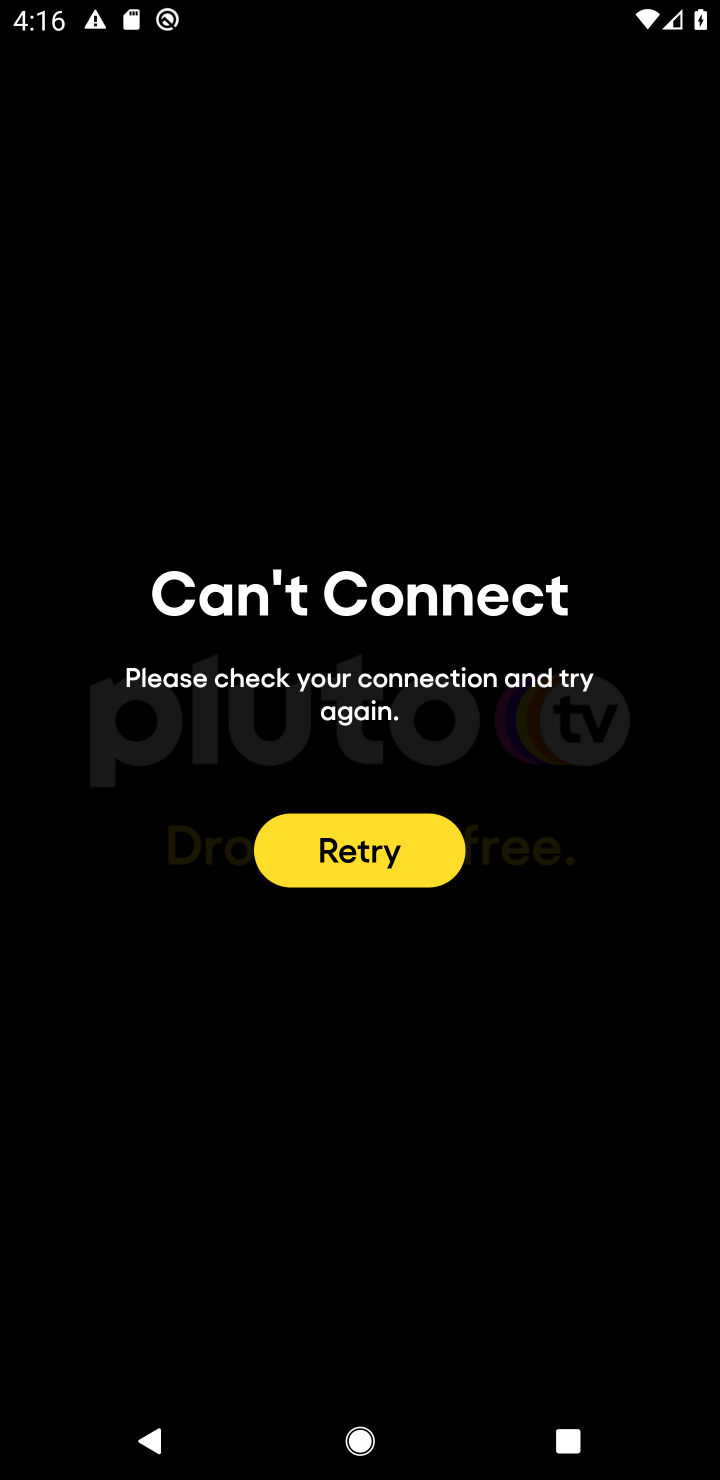
Step 29: task complete